Your task to perform on an android device: open app "LinkedIn" (install if not already installed) and go to login screen Image 0: 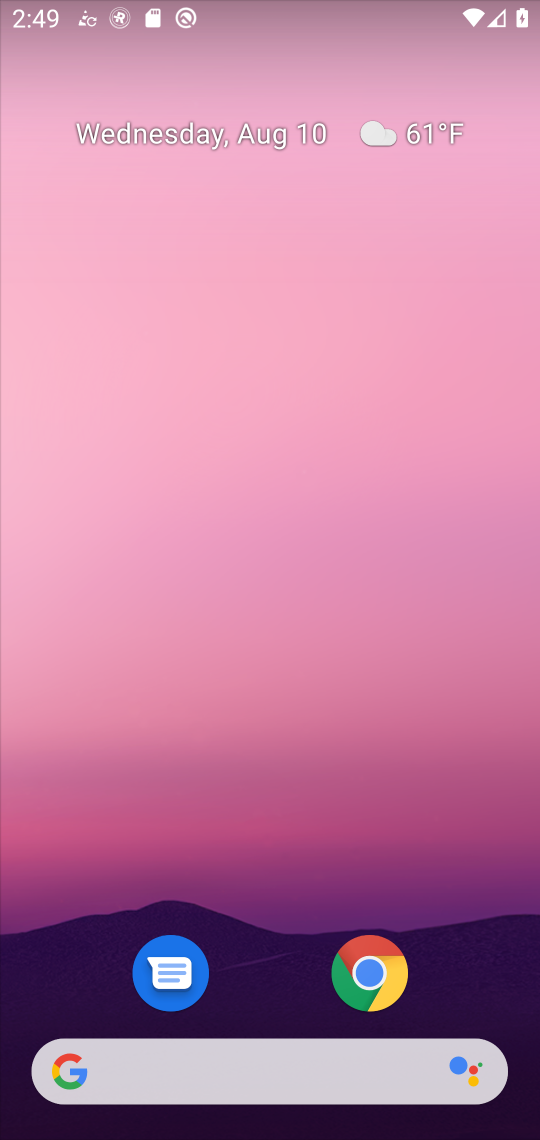
Step 0: drag from (290, 980) to (239, 148)
Your task to perform on an android device: open app "LinkedIn" (install if not already installed) and go to login screen Image 1: 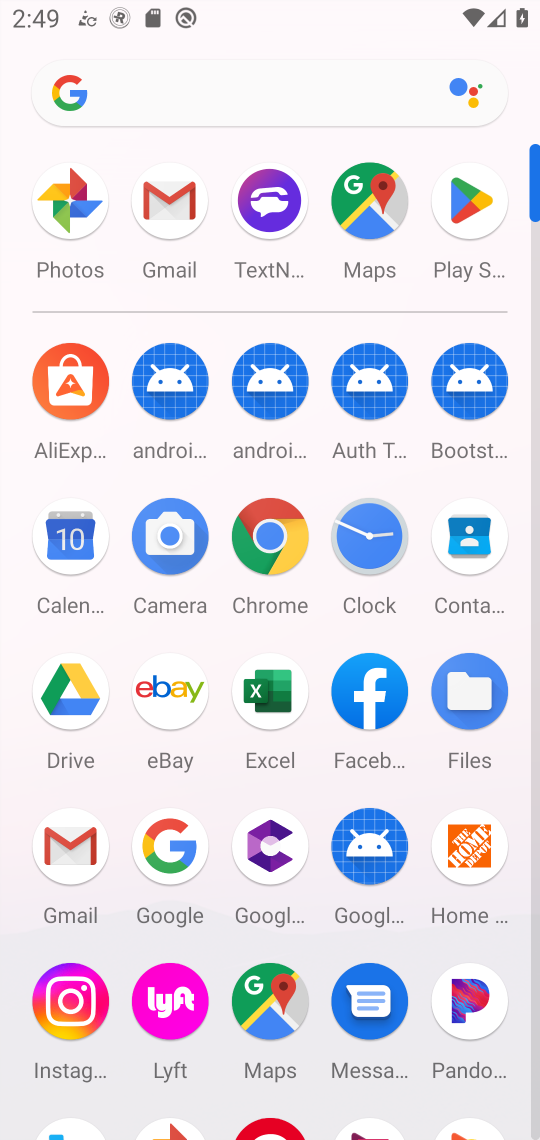
Step 1: click (458, 215)
Your task to perform on an android device: open app "LinkedIn" (install if not already installed) and go to login screen Image 2: 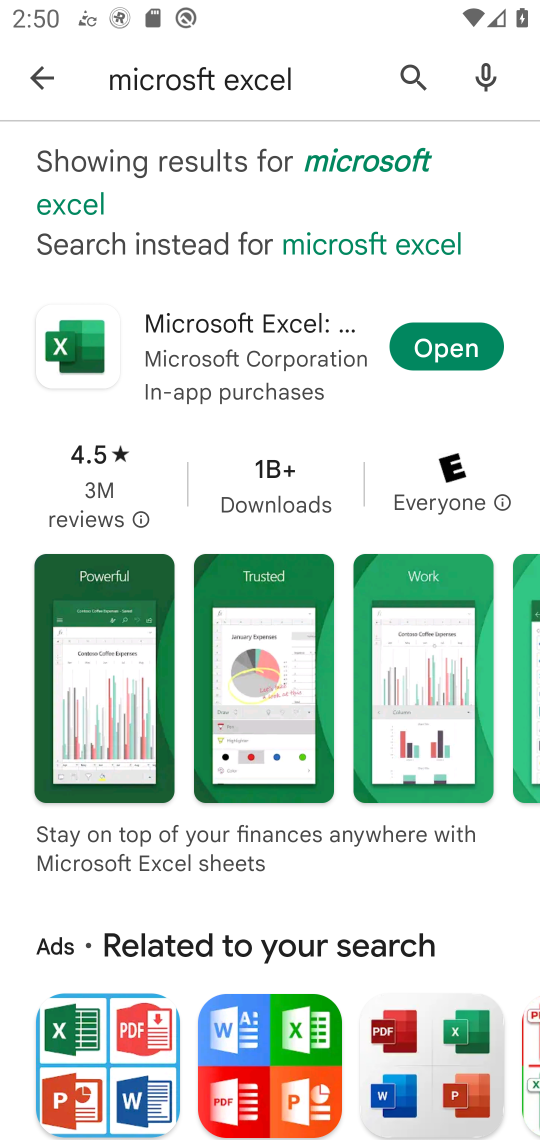
Step 2: click (22, 80)
Your task to perform on an android device: open app "LinkedIn" (install if not already installed) and go to login screen Image 3: 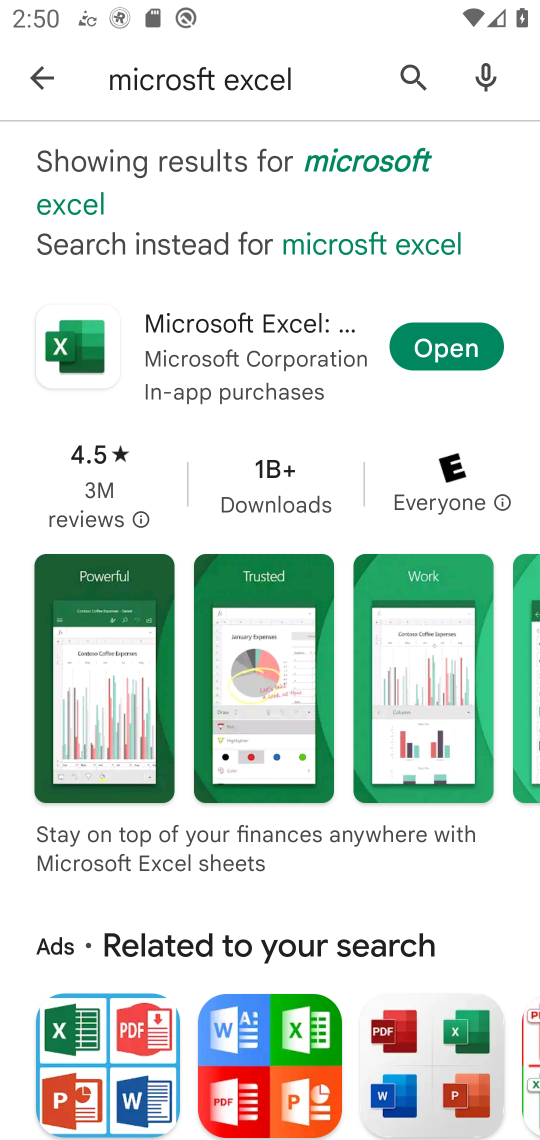
Step 3: click (34, 71)
Your task to perform on an android device: open app "LinkedIn" (install if not already installed) and go to login screen Image 4: 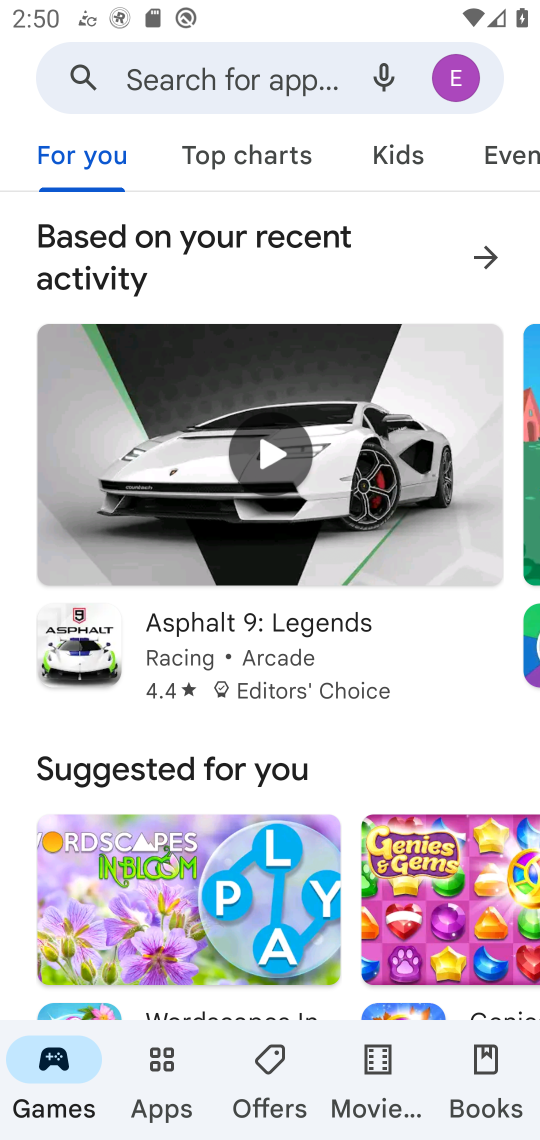
Step 4: click (247, 61)
Your task to perform on an android device: open app "LinkedIn" (install if not already installed) and go to login screen Image 5: 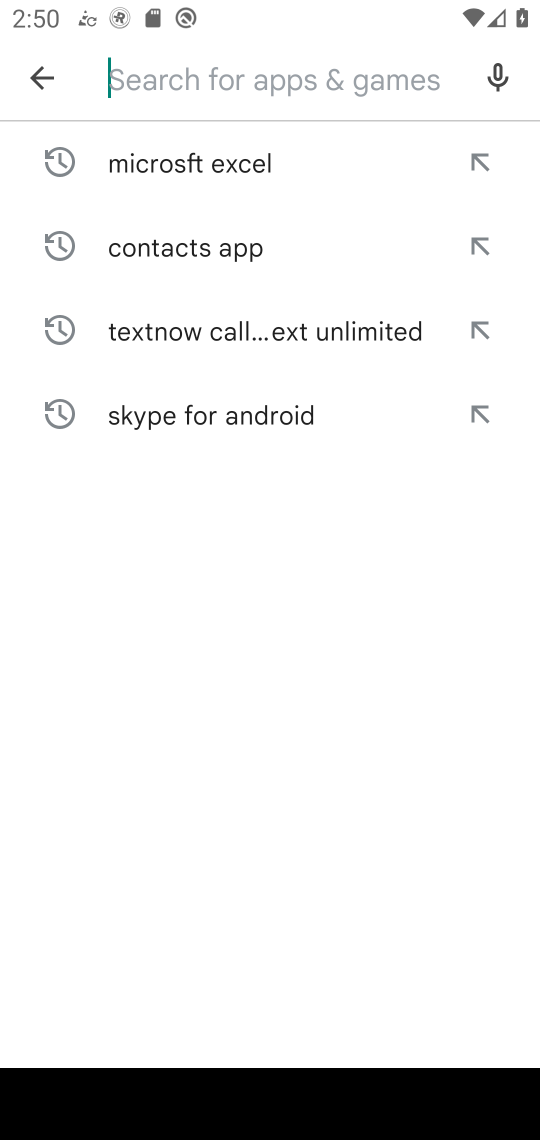
Step 5: type "LinkedIn "
Your task to perform on an android device: open app "LinkedIn" (install if not already installed) and go to login screen Image 6: 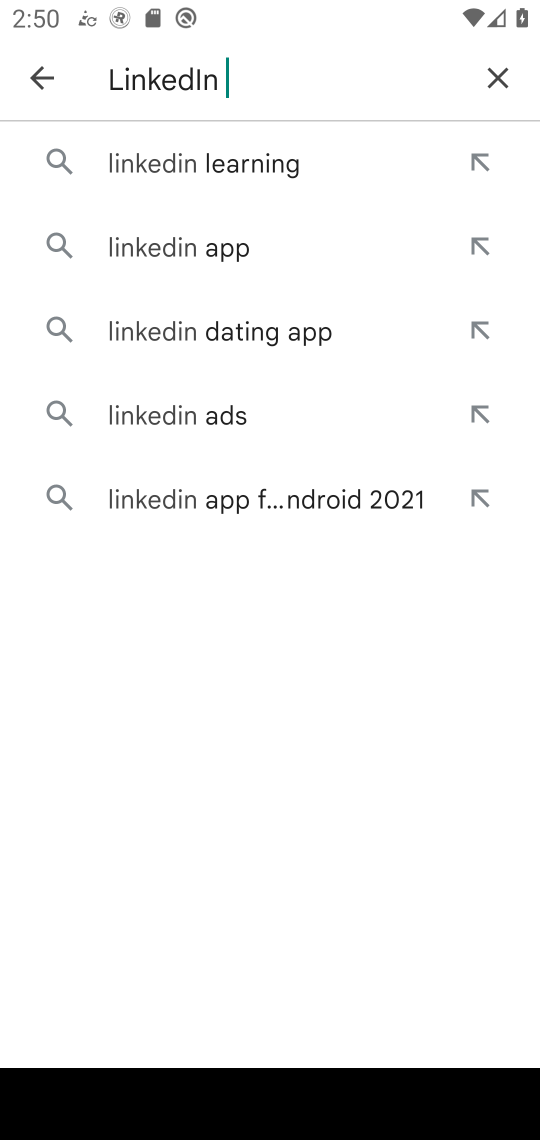
Step 6: click (167, 260)
Your task to perform on an android device: open app "LinkedIn" (install if not already installed) and go to login screen Image 7: 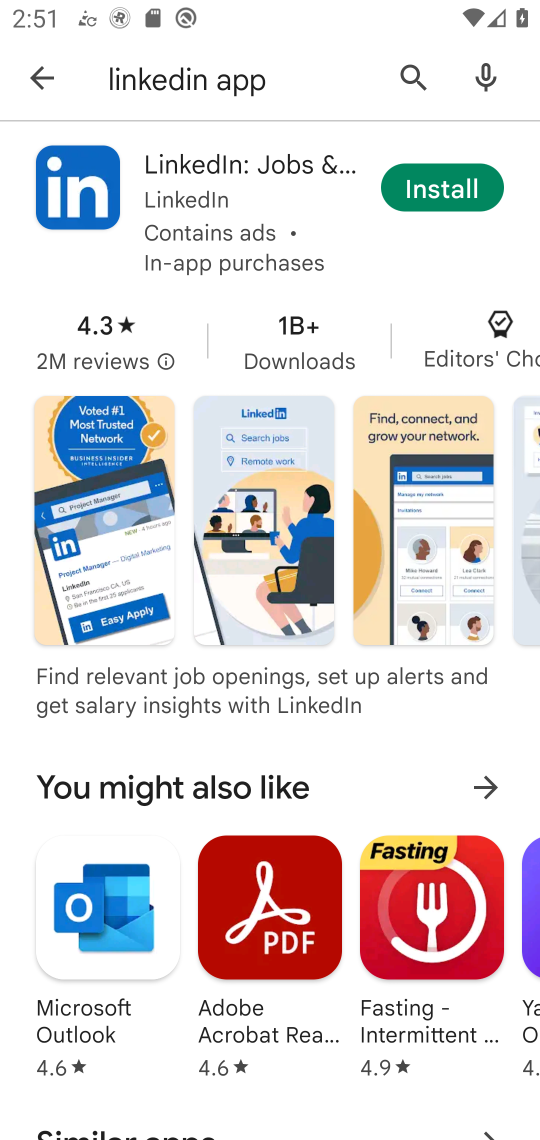
Step 7: click (452, 178)
Your task to perform on an android device: open app "LinkedIn" (install if not already installed) and go to login screen Image 8: 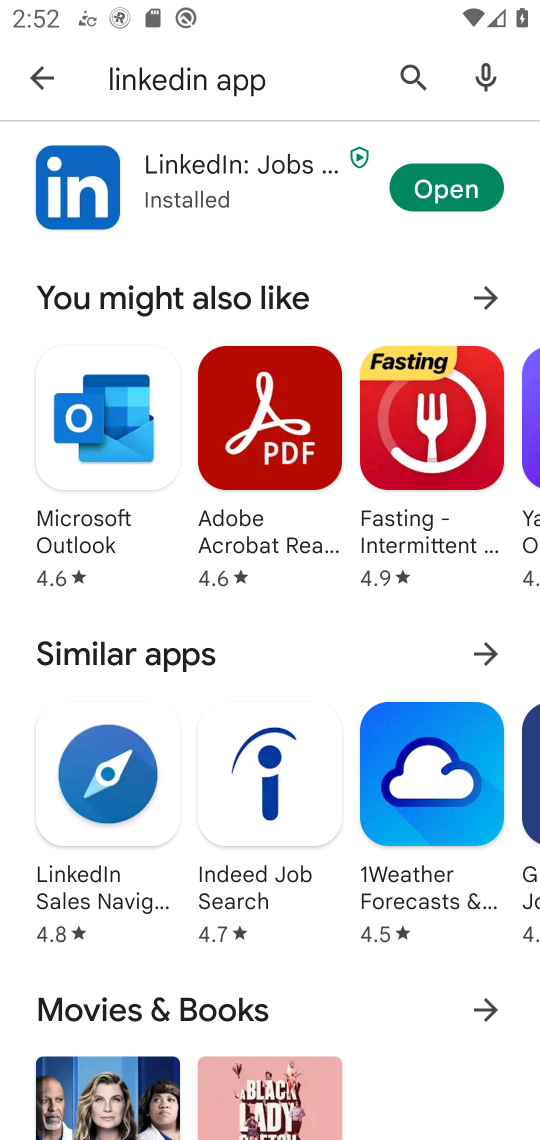
Step 8: click (470, 188)
Your task to perform on an android device: open app "LinkedIn" (install if not already installed) and go to login screen Image 9: 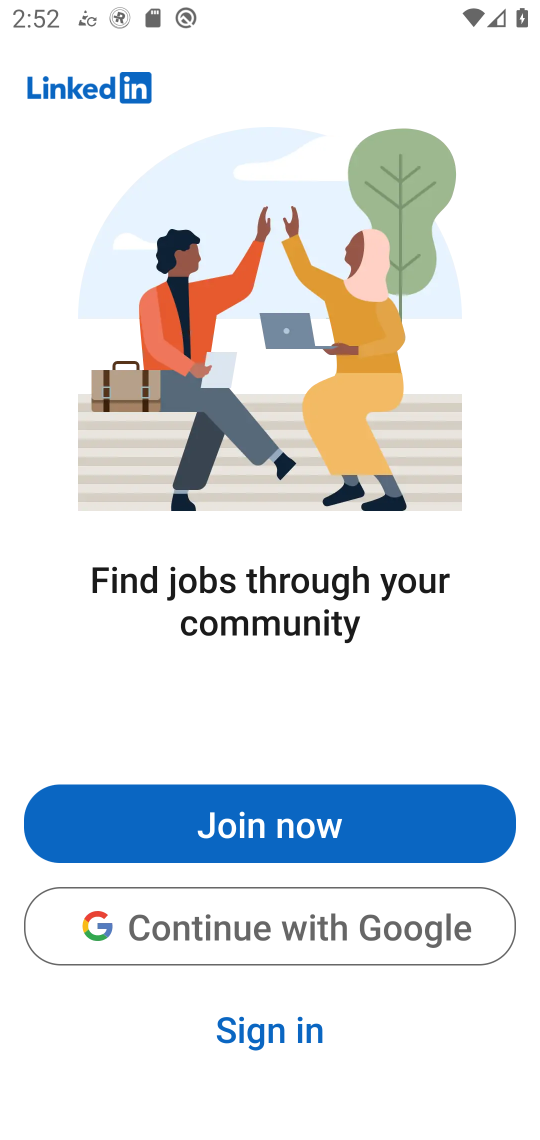
Step 9: task complete